Your task to perform on an android device: change the clock display to analog Image 0: 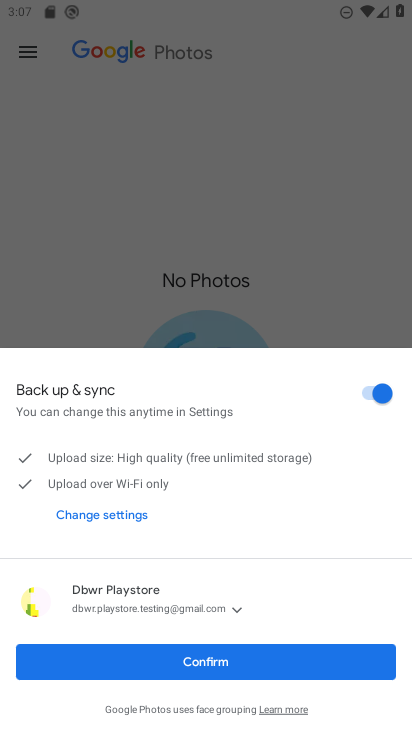
Step 0: press home button
Your task to perform on an android device: change the clock display to analog Image 1: 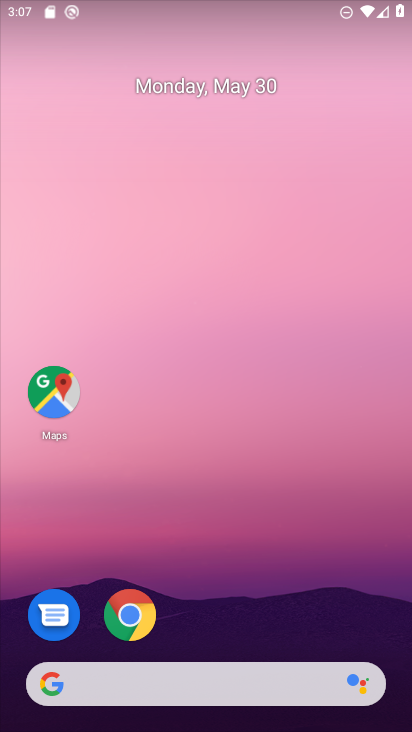
Step 1: drag from (353, 595) to (280, 187)
Your task to perform on an android device: change the clock display to analog Image 2: 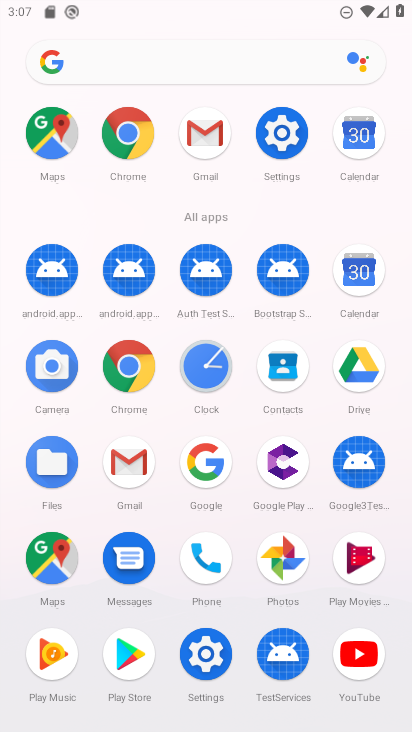
Step 2: click (218, 373)
Your task to perform on an android device: change the clock display to analog Image 3: 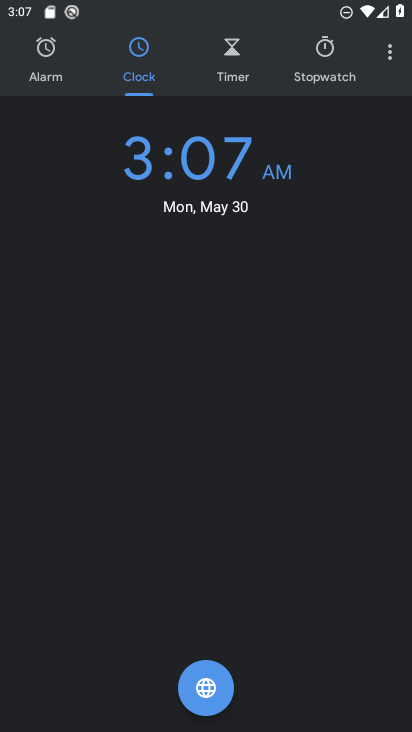
Step 3: click (387, 51)
Your task to perform on an android device: change the clock display to analog Image 4: 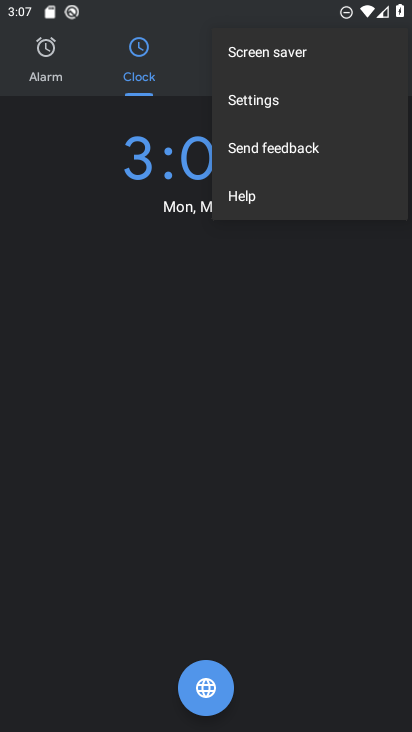
Step 4: click (308, 113)
Your task to perform on an android device: change the clock display to analog Image 5: 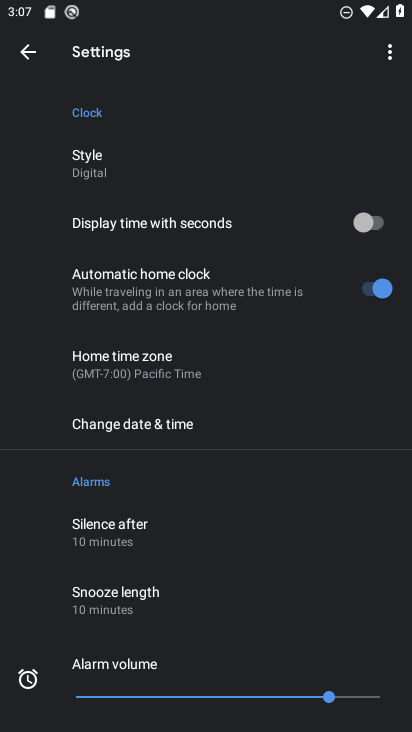
Step 5: click (277, 185)
Your task to perform on an android device: change the clock display to analog Image 6: 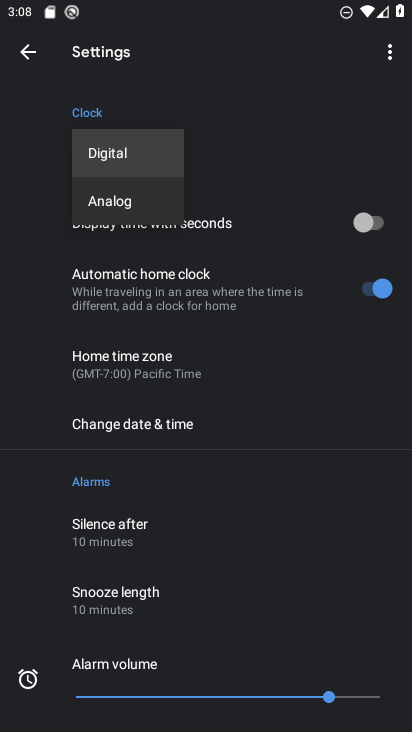
Step 6: click (139, 206)
Your task to perform on an android device: change the clock display to analog Image 7: 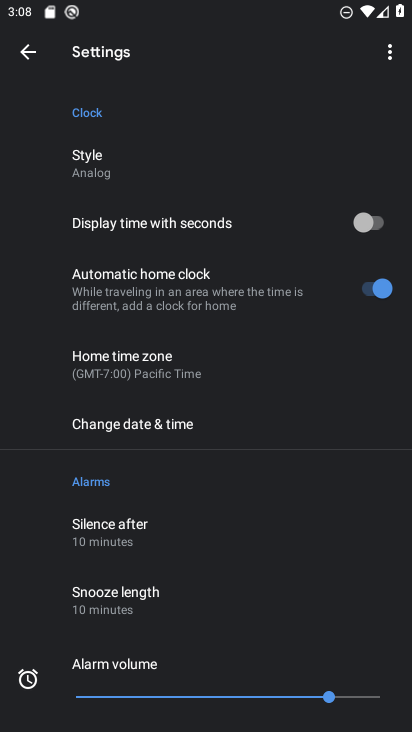
Step 7: task complete